Your task to perform on an android device: empty trash in the gmail app Image 0: 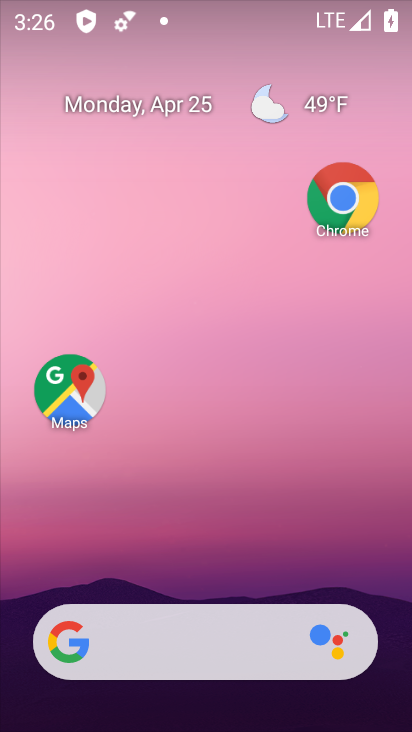
Step 0: drag from (152, 648) to (353, 106)
Your task to perform on an android device: empty trash in the gmail app Image 1: 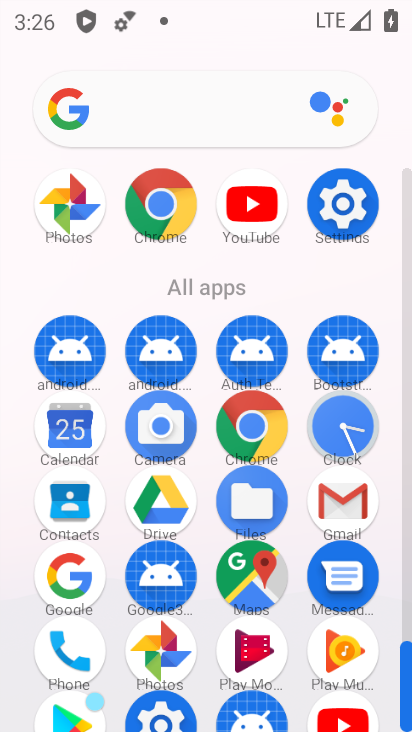
Step 1: click (329, 496)
Your task to perform on an android device: empty trash in the gmail app Image 2: 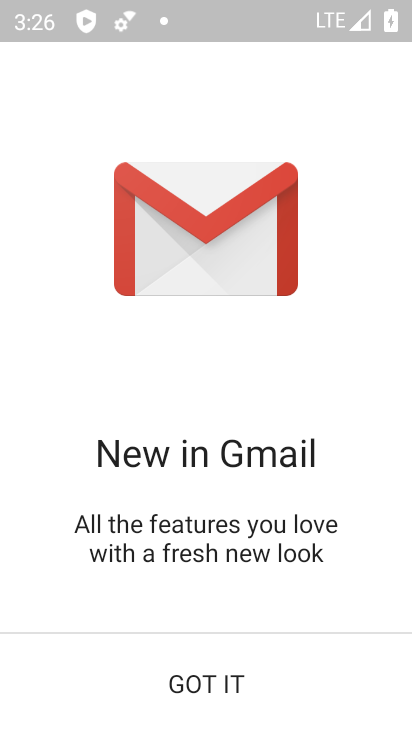
Step 2: click (212, 695)
Your task to perform on an android device: empty trash in the gmail app Image 3: 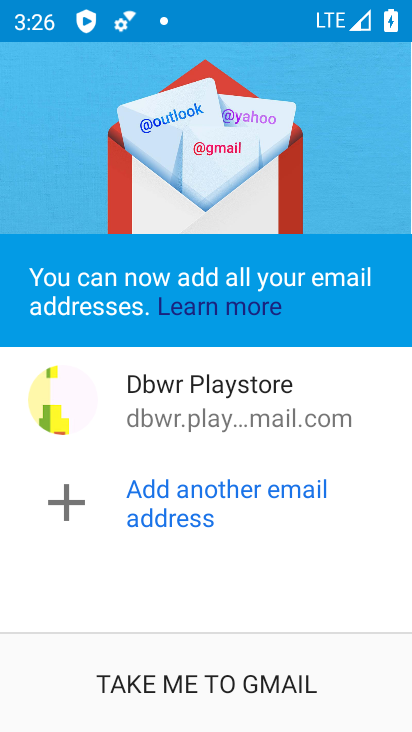
Step 3: click (216, 688)
Your task to perform on an android device: empty trash in the gmail app Image 4: 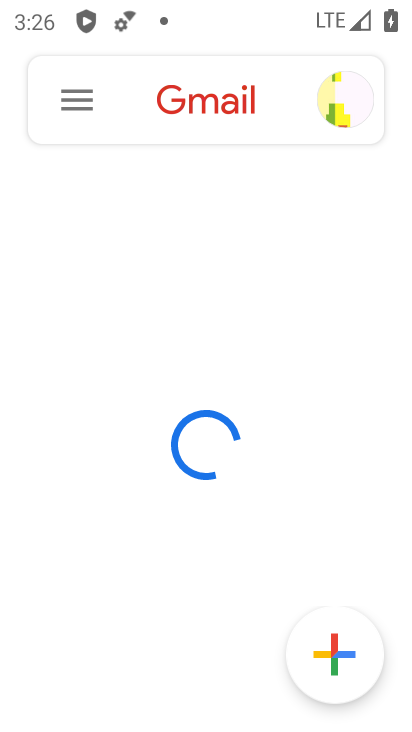
Step 4: click (75, 91)
Your task to perform on an android device: empty trash in the gmail app Image 5: 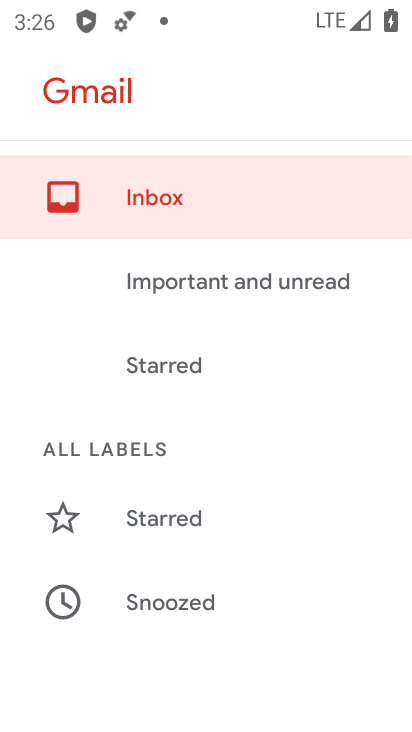
Step 5: drag from (245, 577) to (411, 207)
Your task to perform on an android device: empty trash in the gmail app Image 6: 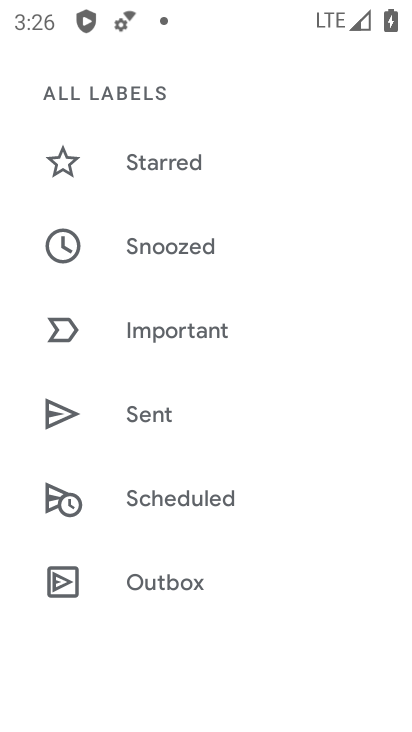
Step 6: drag from (203, 565) to (303, 187)
Your task to perform on an android device: empty trash in the gmail app Image 7: 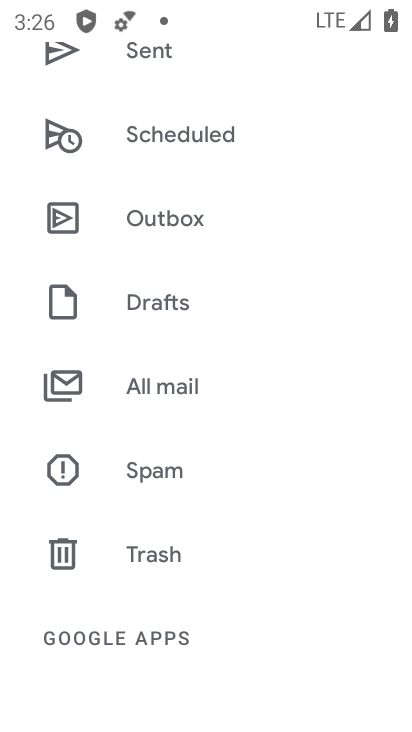
Step 7: click (135, 562)
Your task to perform on an android device: empty trash in the gmail app Image 8: 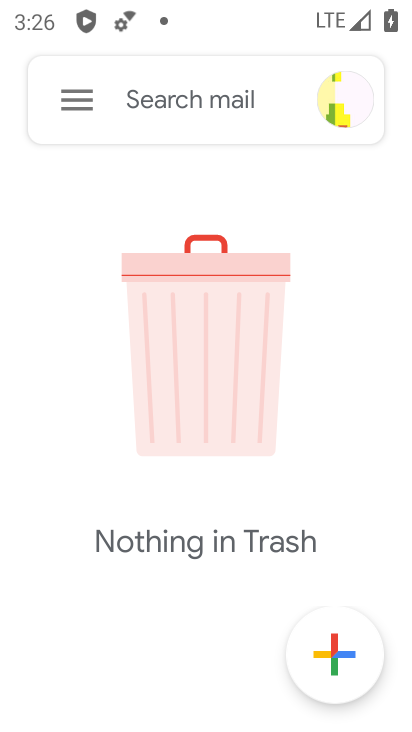
Step 8: task complete